Your task to perform on an android device: Go to Google maps Image 0: 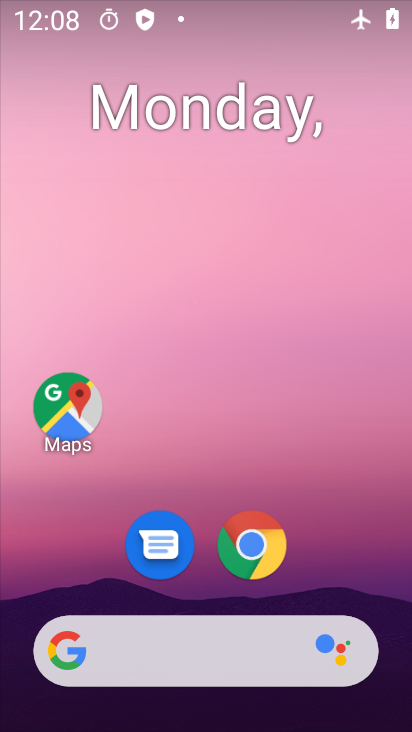
Step 0: drag from (196, 597) to (270, 46)
Your task to perform on an android device: Go to Google maps Image 1: 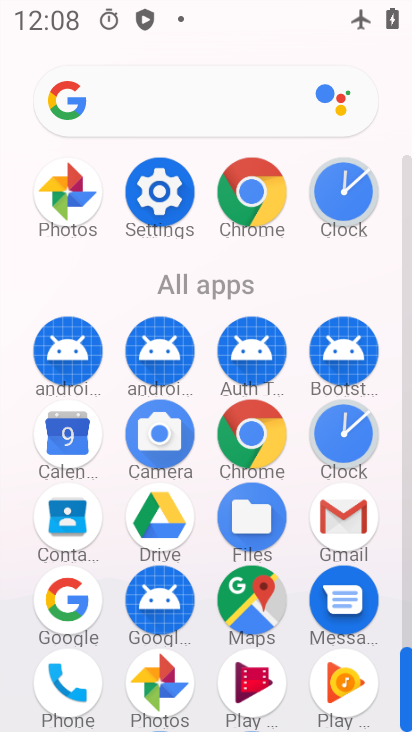
Step 1: drag from (208, 652) to (229, 124)
Your task to perform on an android device: Go to Google maps Image 2: 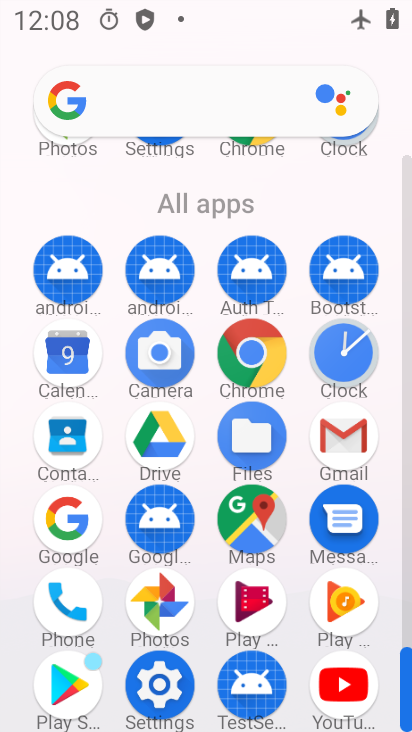
Step 2: click (252, 518)
Your task to perform on an android device: Go to Google maps Image 3: 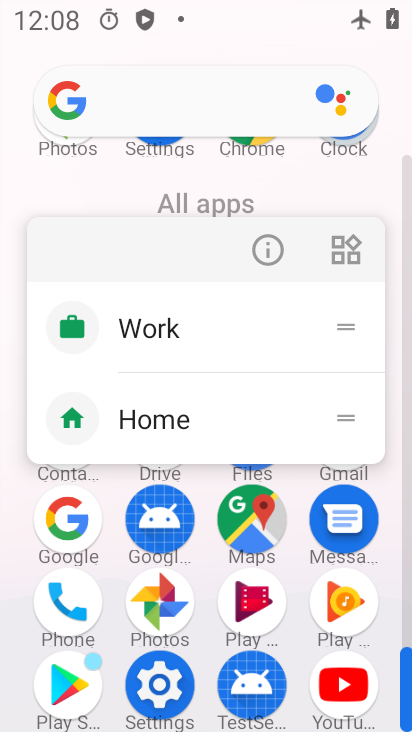
Step 3: click (266, 262)
Your task to perform on an android device: Go to Google maps Image 4: 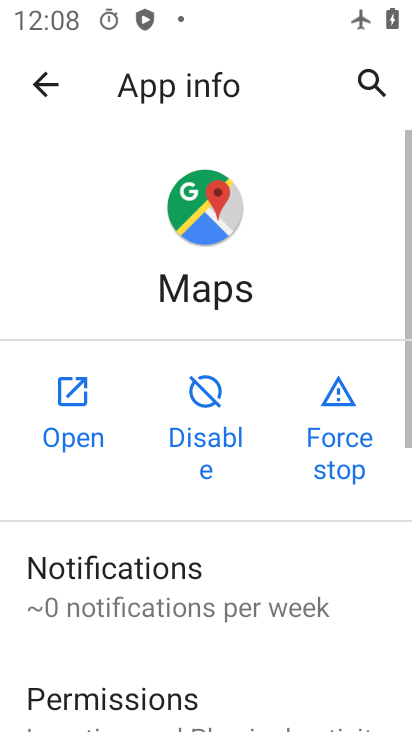
Step 4: click (74, 395)
Your task to perform on an android device: Go to Google maps Image 5: 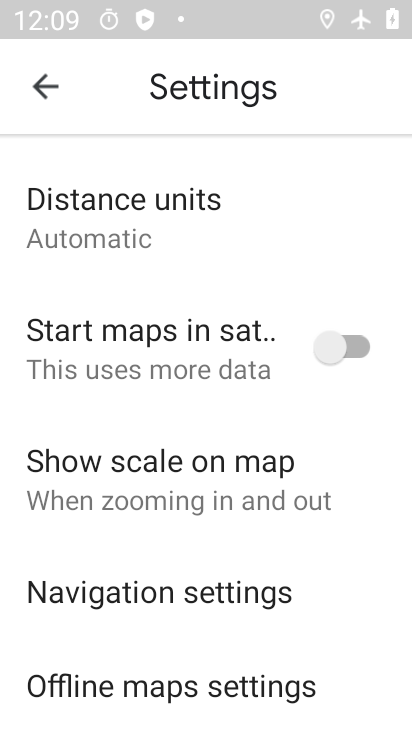
Step 5: drag from (201, 617) to (313, 334)
Your task to perform on an android device: Go to Google maps Image 6: 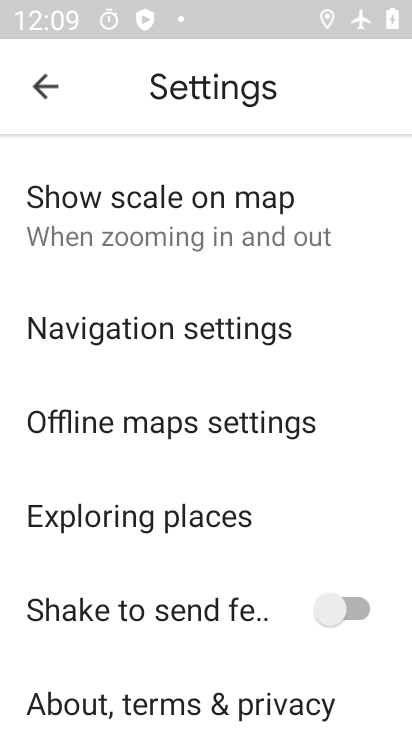
Step 6: press home button
Your task to perform on an android device: Go to Google maps Image 7: 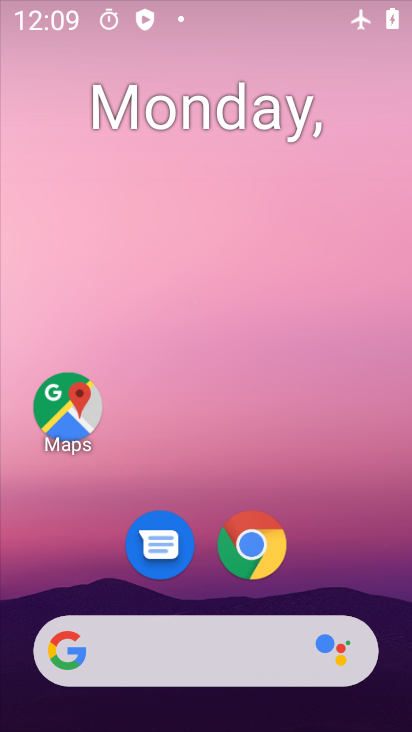
Step 7: drag from (188, 622) to (315, 190)
Your task to perform on an android device: Go to Google maps Image 8: 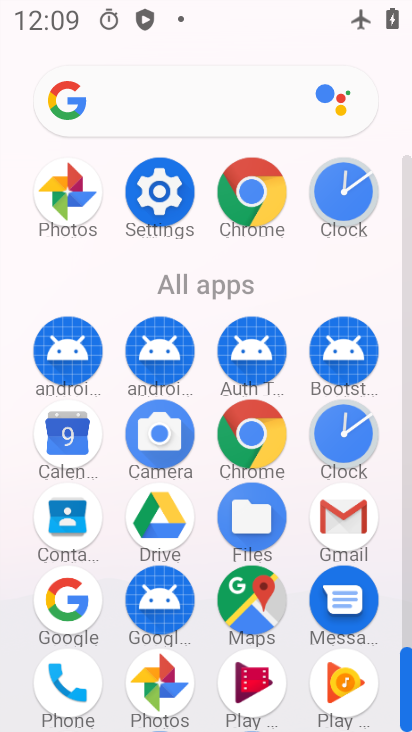
Step 8: click (263, 624)
Your task to perform on an android device: Go to Google maps Image 9: 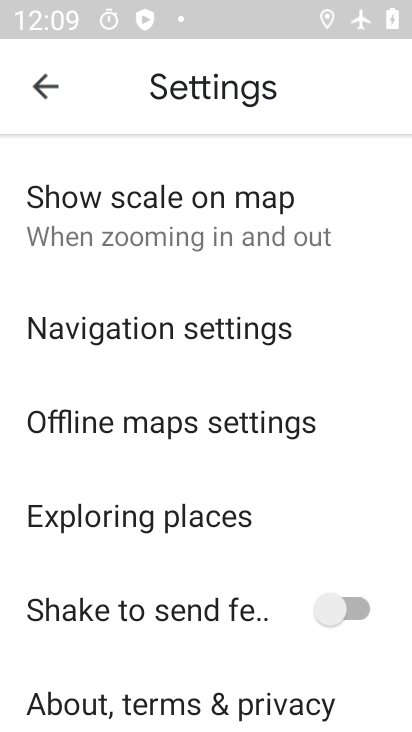
Step 9: drag from (187, 646) to (264, 251)
Your task to perform on an android device: Go to Google maps Image 10: 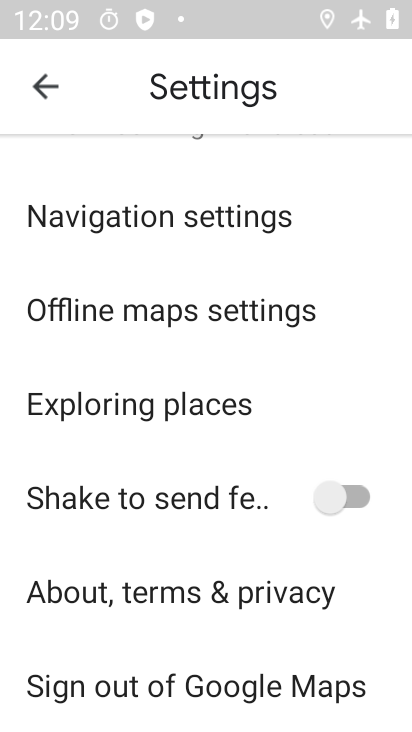
Step 10: click (37, 83)
Your task to perform on an android device: Go to Google maps Image 11: 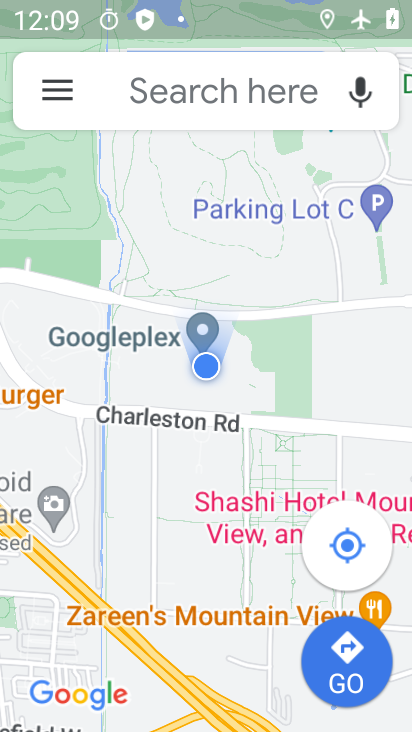
Step 11: task complete